Your task to perform on an android device: Go to calendar. Show me events next week Image 0: 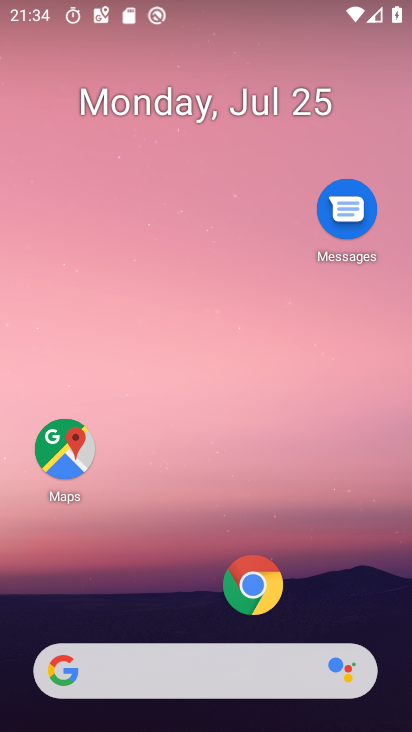
Step 0: drag from (145, 687) to (268, 129)
Your task to perform on an android device: Go to calendar. Show me events next week Image 1: 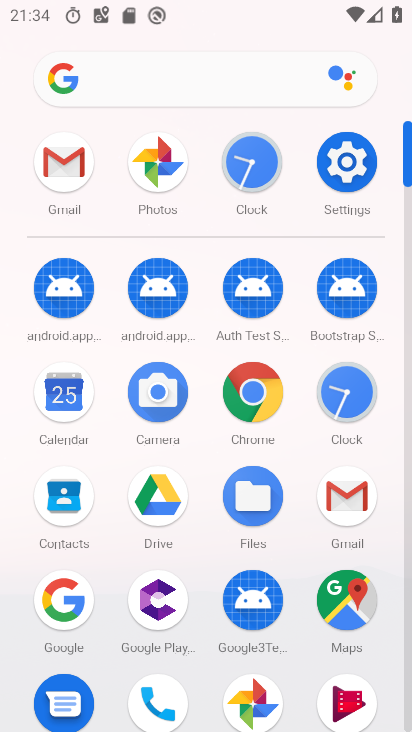
Step 1: click (64, 404)
Your task to perform on an android device: Go to calendar. Show me events next week Image 2: 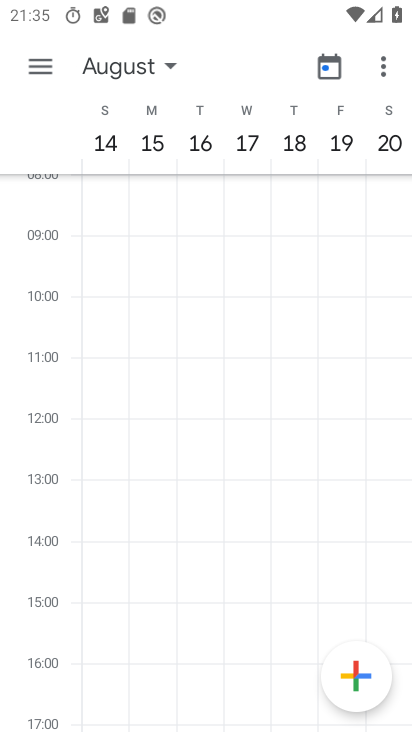
Step 2: click (109, 71)
Your task to perform on an android device: Go to calendar. Show me events next week Image 3: 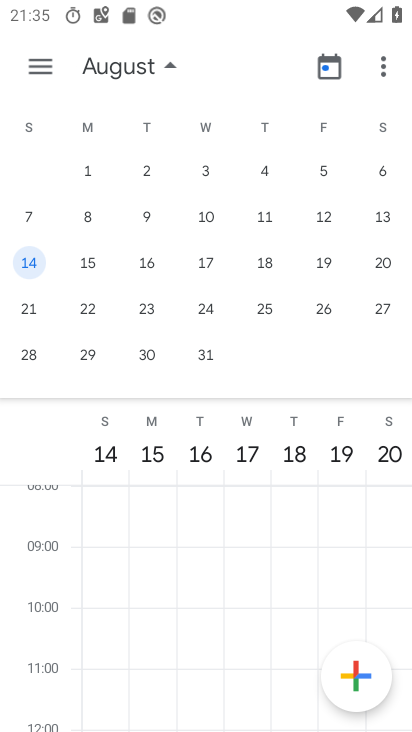
Step 3: drag from (77, 306) to (405, 393)
Your task to perform on an android device: Go to calendar. Show me events next week Image 4: 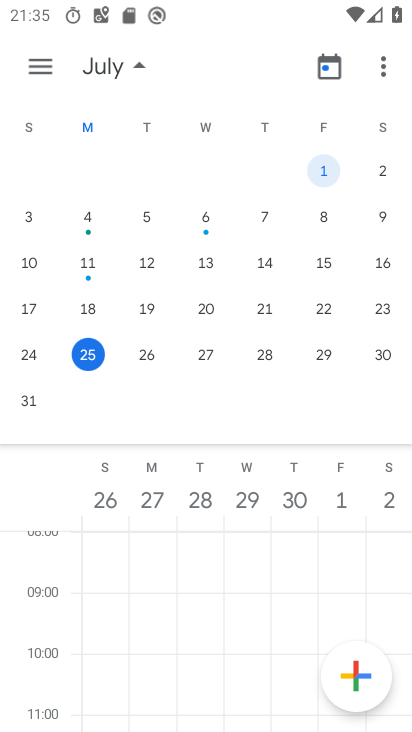
Step 4: drag from (64, 214) to (411, 213)
Your task to perform on an android device: Go to calendar. Show me events next week Image 5: 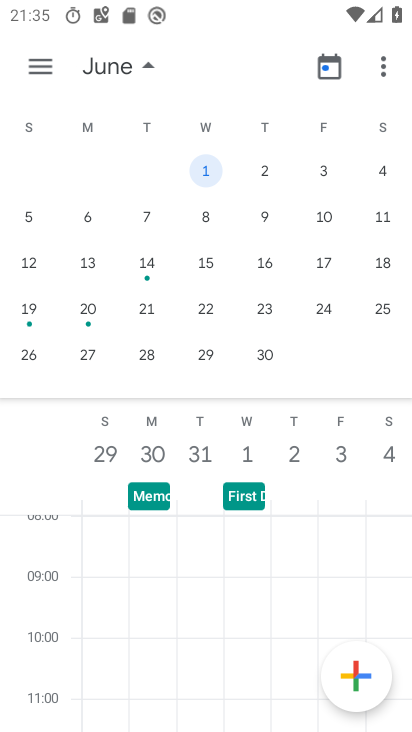
Step 5: drag from (300, 283) to (17, 318)
Your task to perform on an android device: Go to calendar. Show me events next week Image 6: 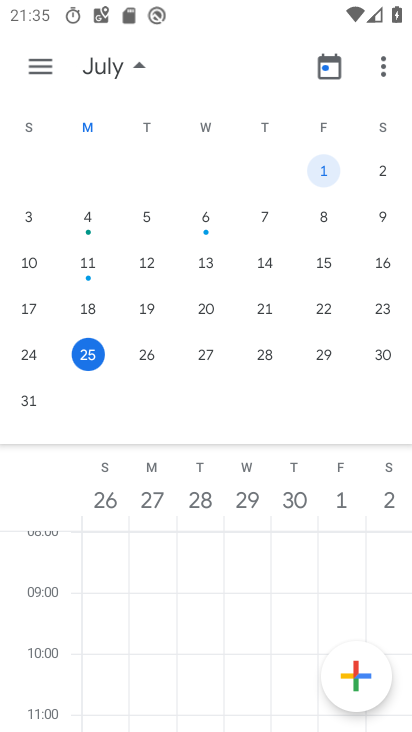
Step 6: click (25, 401)
Your task to perform on an android device: Go to calendar. Show me events next week Image 7: 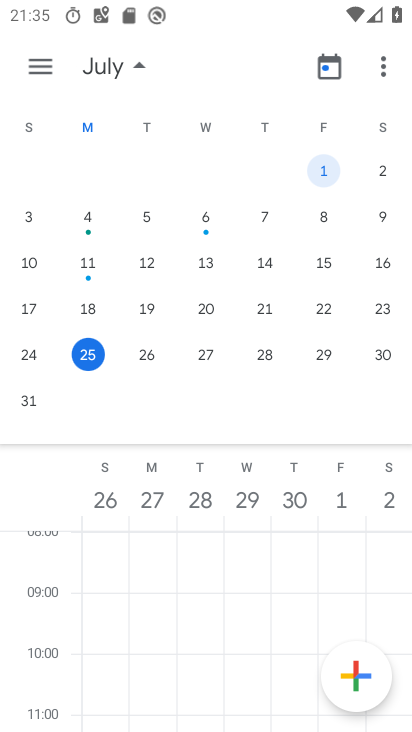
Step 7: click (31, 405)
Your task to perform on an android device: Go to calendar. Show me events next week Image 8: 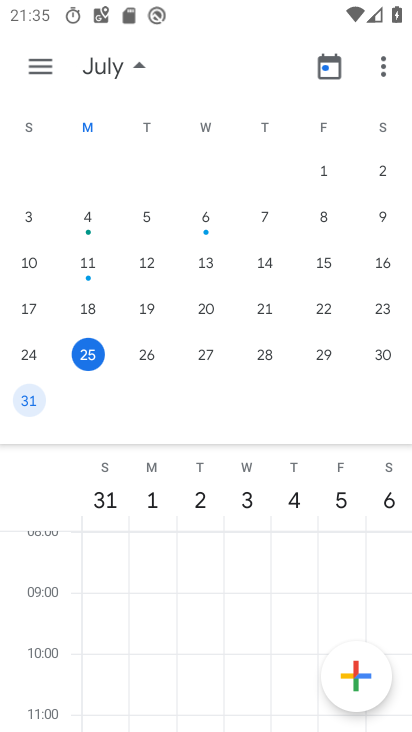
Step 8: click (41, 65)
Your task to perform on an android device: Go to calendar. Show me events next week Image 9: 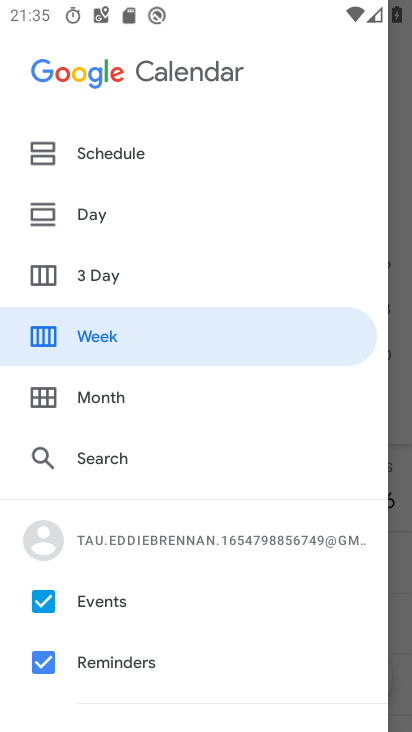
Step 9: click (109, 331)
Your task to perform on an android device: Go to calendar. Show me events next week Image 10: 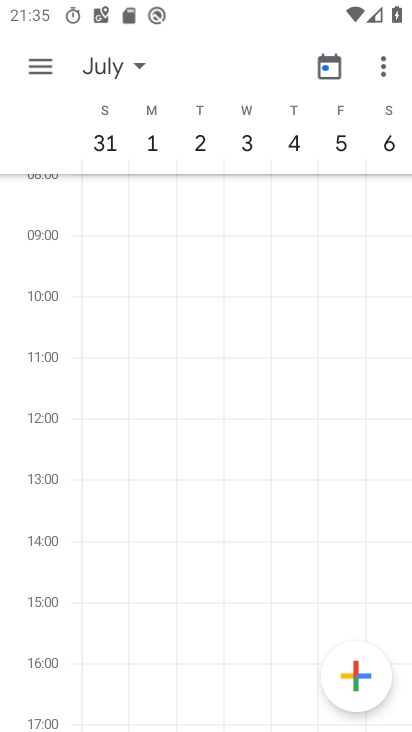
Step 10: click (31, 66)
Your task to perform on an android device: Go to calendar. Show me events next week Image 11: 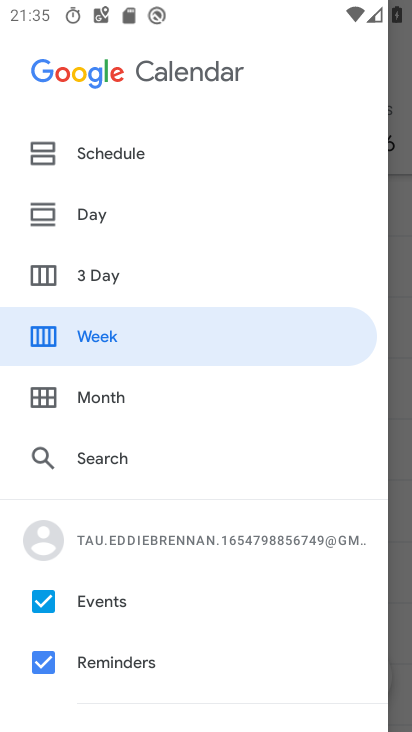
Step 11: click (120, 150)
Your task to perform on an android device: Go to calendar. Show me events next week Image 12: 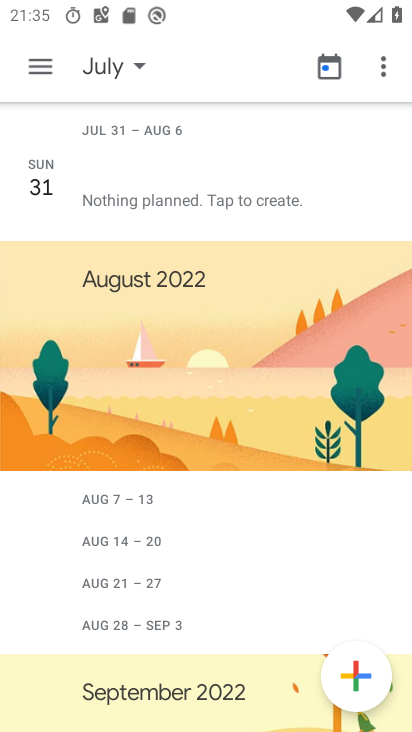
Step 12: task complete